Your task to perform on an android device: remove spam from my inbox in the gmail app Image 0: 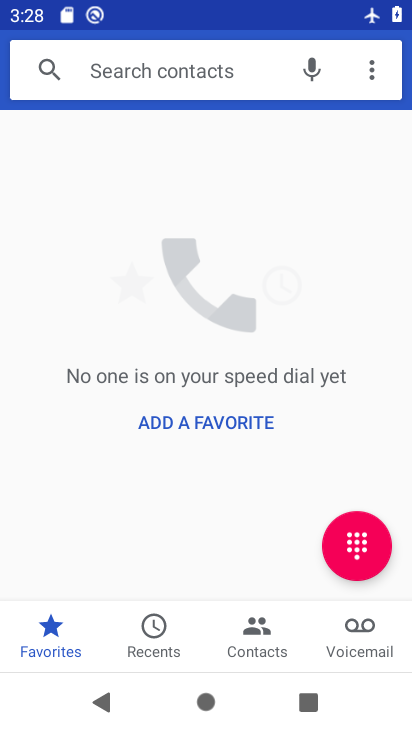
Step 0: press home button
Your task to perform on an android device: remove spam from my inbox in the gmail app Image 1: 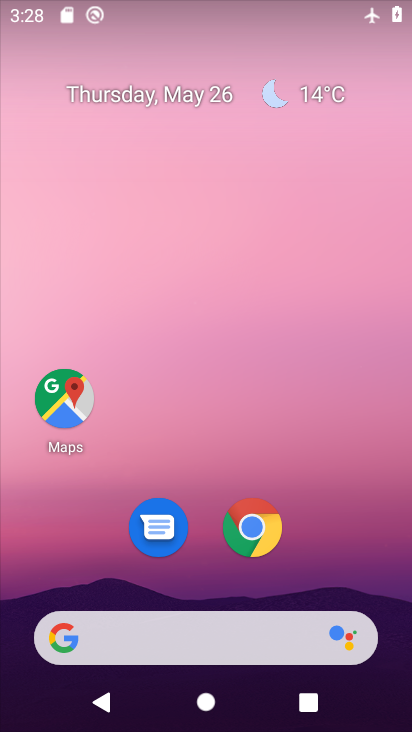
Step 1: drag from (400, 606) to (302, 175)
Your task to perform on an android device: remove spam from my inbox in the gmail app Image 2: 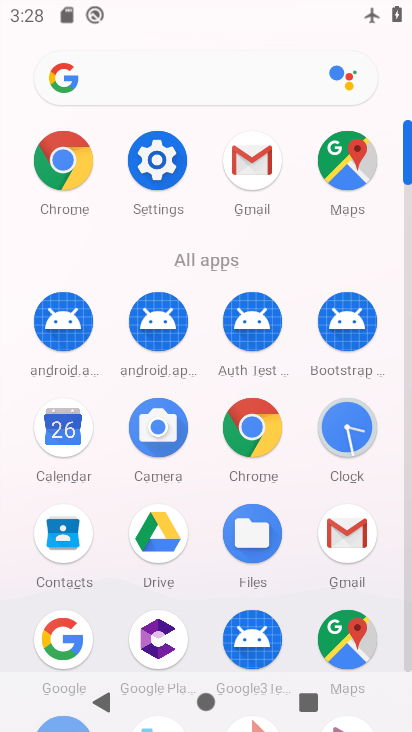
Step 2: click (349, 529)
Your task to perform on an android device: remove spam from my inbox in the gmail app Image 3: 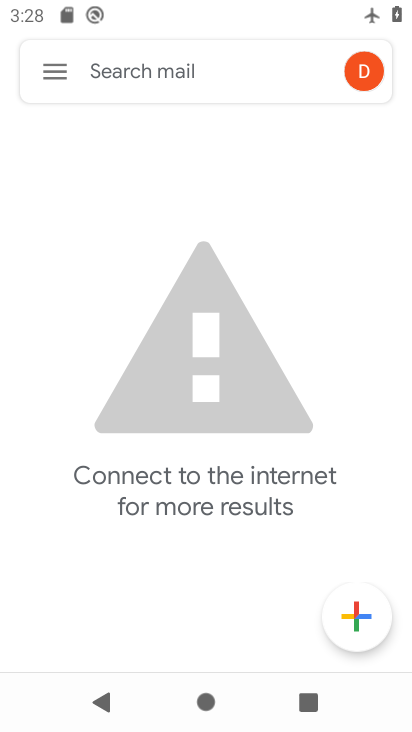
Step 3: click (59, 81)
Your task to perform on an android device: remove spam from my inbox in the gmail app Image 4: 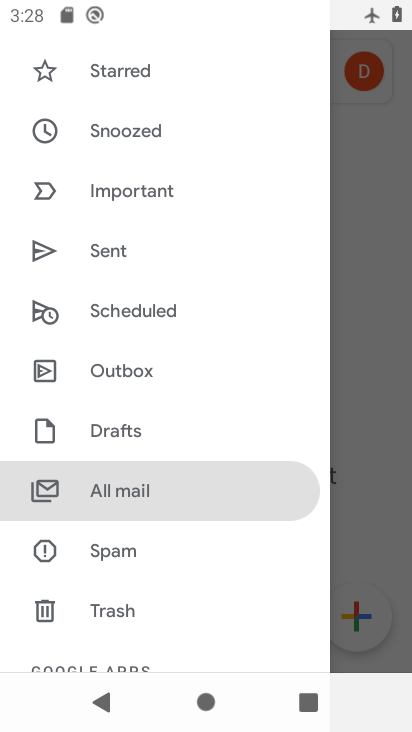
Step 4: click (114, 542)
Your task to perform on an android device: remove spam from my inbox in the gmail app Image 5: 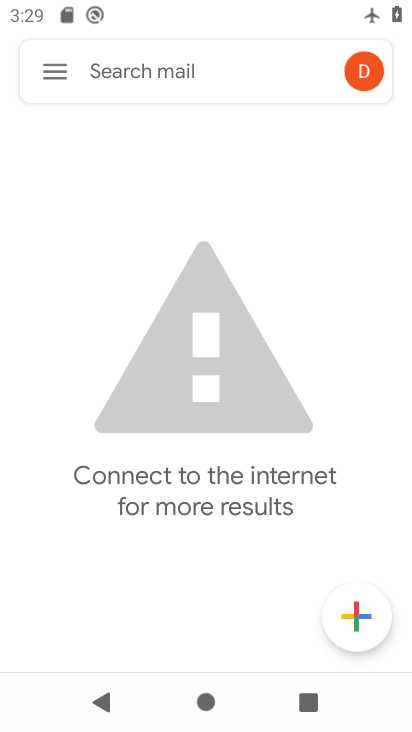
Step 5: task complete